Your task to perform on an android device: check storage Image 0: 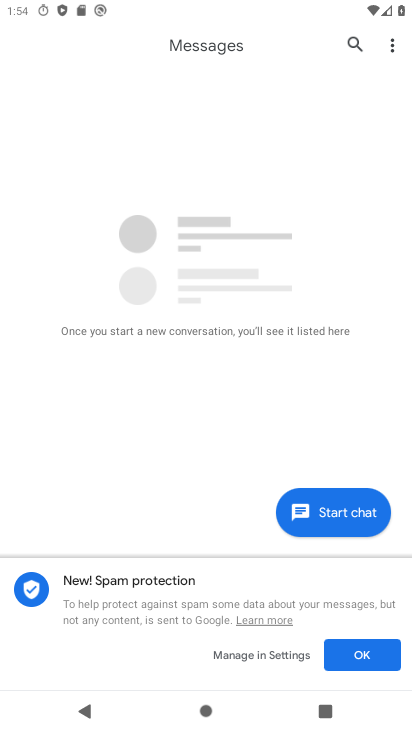
Step 0: press home button
Your task to perform on an android device: check storage Image 1: 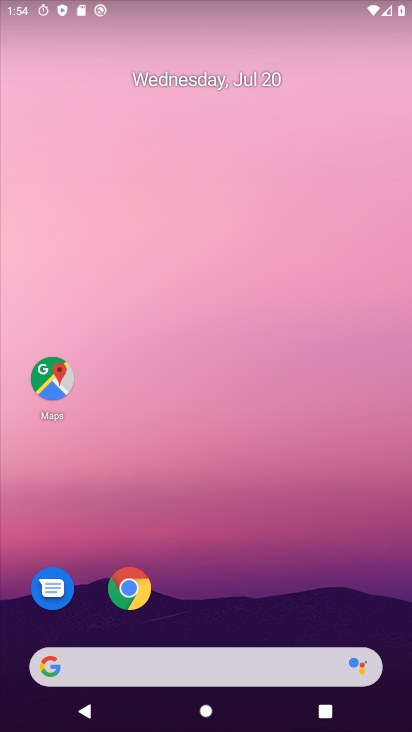
Step 1: drag from (212, 623) to (261, 68)
Your task to perform on an android device: check storage Image 2: 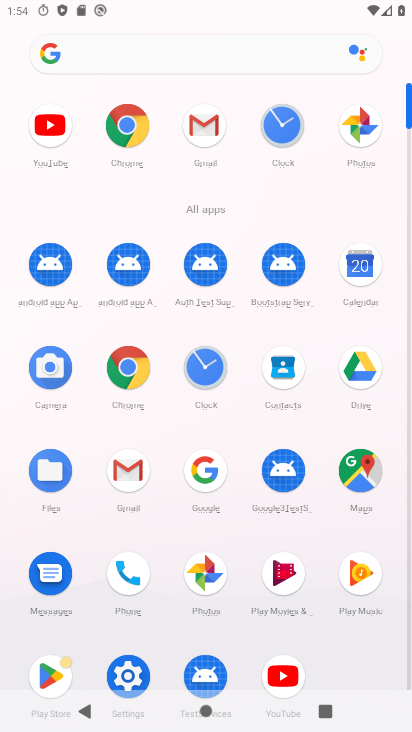
Step 2: click (129, 673)
Your task to perform on an android device: check storage Image 3: 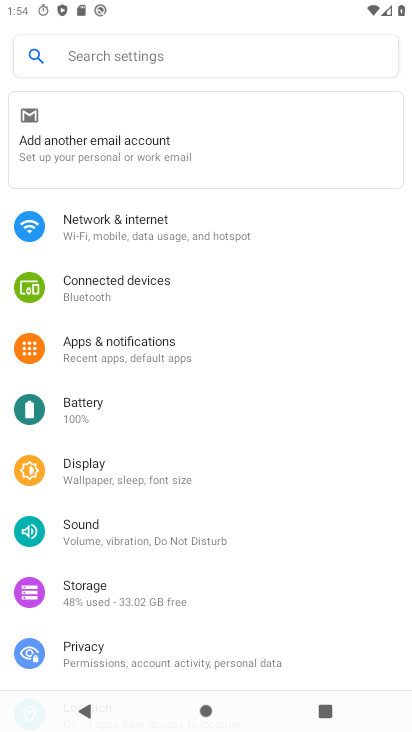
Step 3: click (147, 591)
Your task to perform on an android device: check storage Image 4: 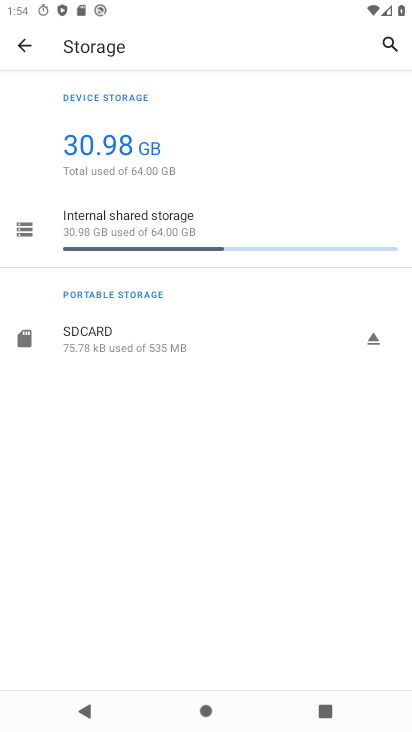
Step 4: task complete